Your task to perform on an android device: Open Google Image 0: 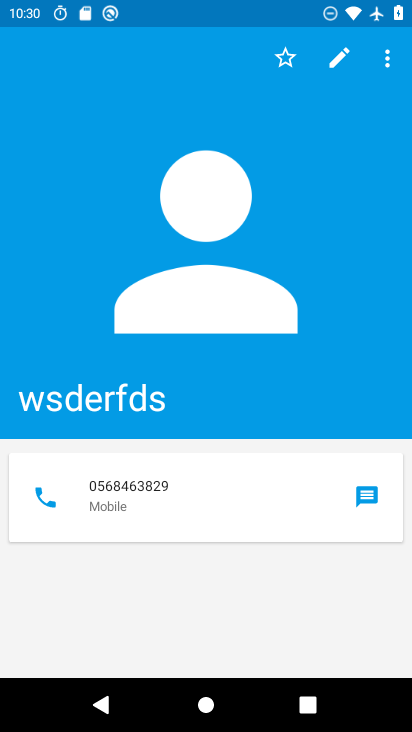
Step 0: press home button
Your task to perform on an android device: Open Google Image 1: 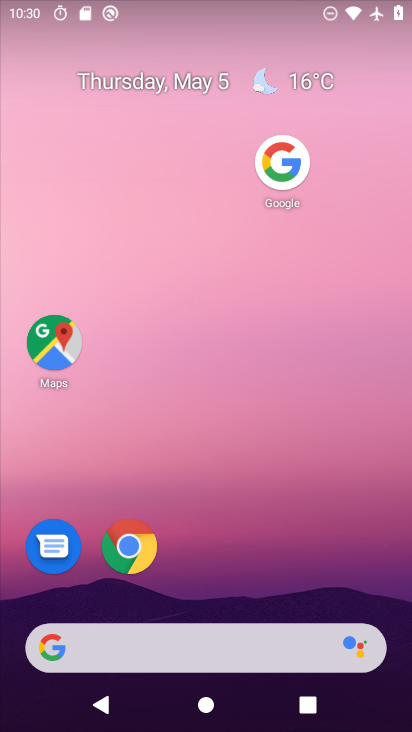
Step 1: drag from (141, 653) to (306, 11)
Your task to perform on an android device: Open Google Image 2: 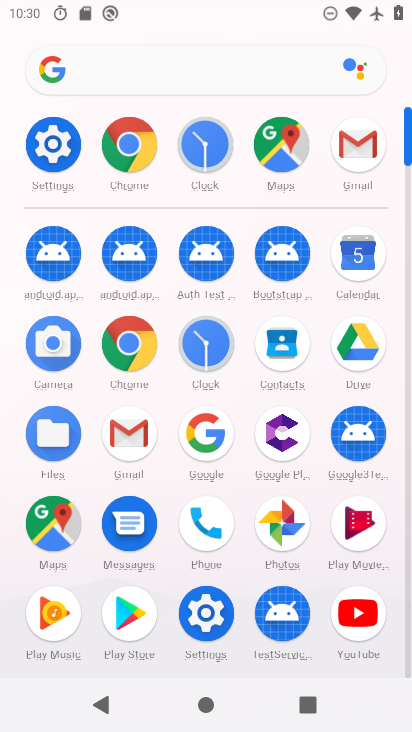
Step 2: click (208, 449)
Your task to perform on an android device: Open Google Image 3: 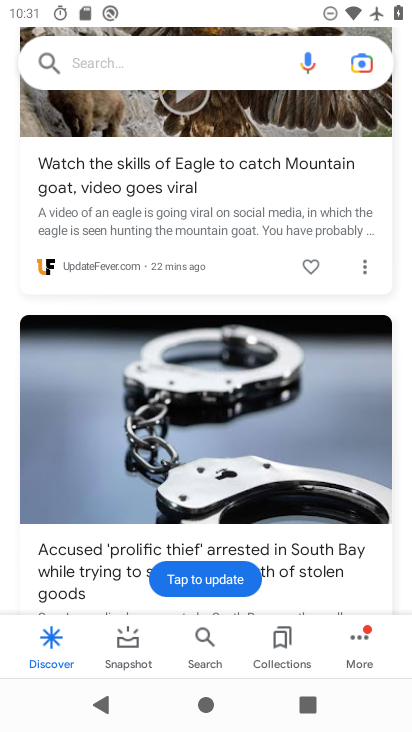
Step 3: task complete